Your task to perform on an android device: Do I have any events tomorrow? Image 0: 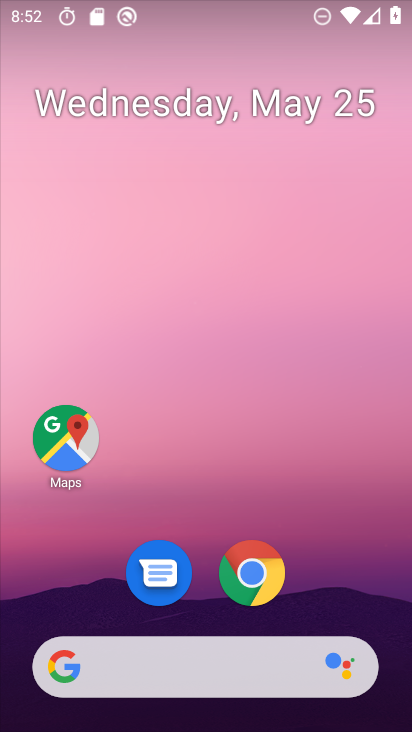
Step 0: drag from (393, 704) to (295, 146)
Your task to perform on an android device: Do I have any events tomorrow? Image 1: 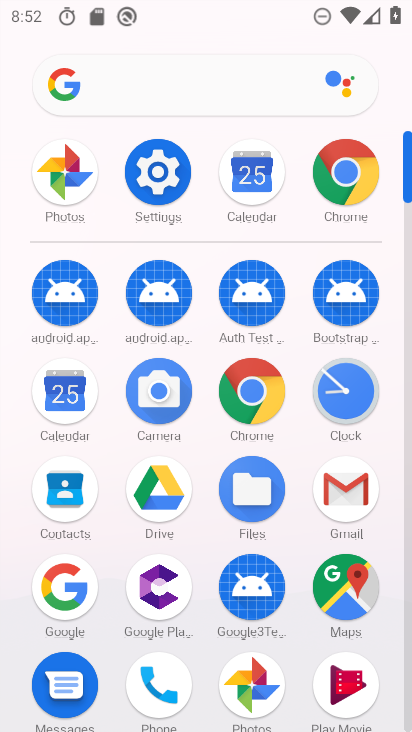
Step 1: click (70, 400)
Your task to perform on an android device: Do I have any events tomorrow? Image 2: 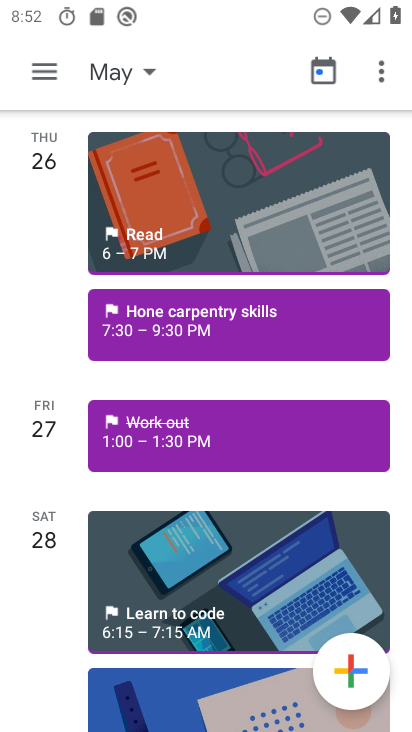
Step 2: task complete